Your task to perform on an android device: Do I have any events tomorrow? Image 0: 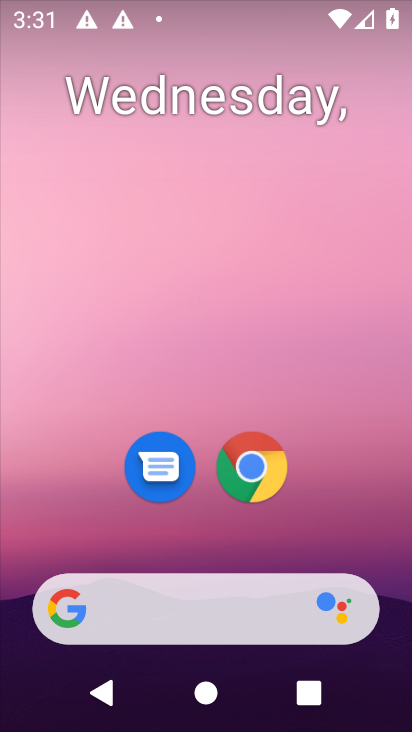
Step 0: drag from (10, 562) to (56, 195)
Your task to perform on an android device: Do I have any events tomorrow? Image 1: 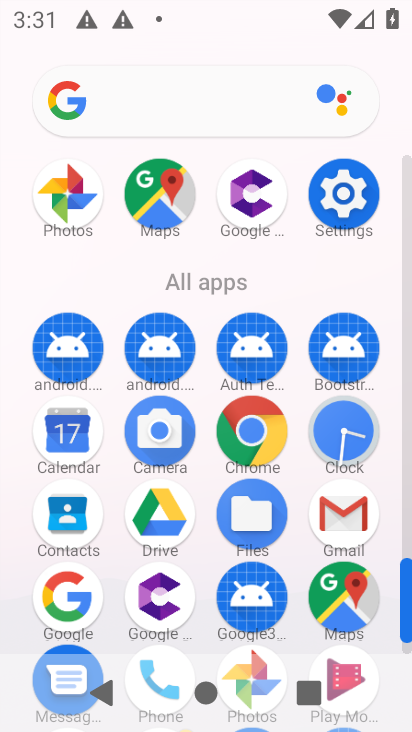
Step 1: click (66, 446)
Your task to perform on an android device: Do I have any events tomorrow? Image 2: 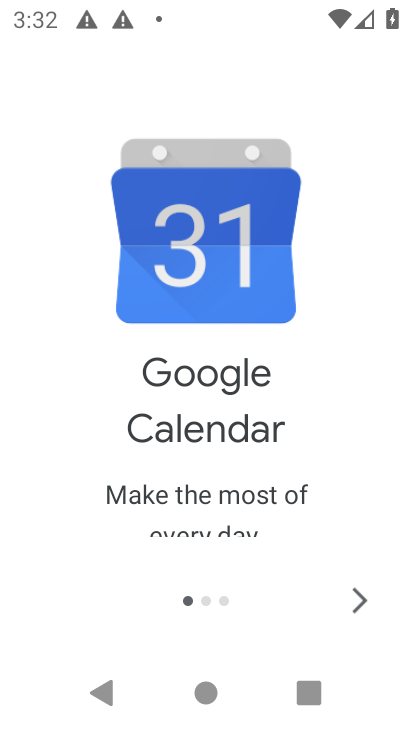
Step 2: click (363, 593)
Your task to perform on an android device: Do I have any events tomorrow? Image 3: 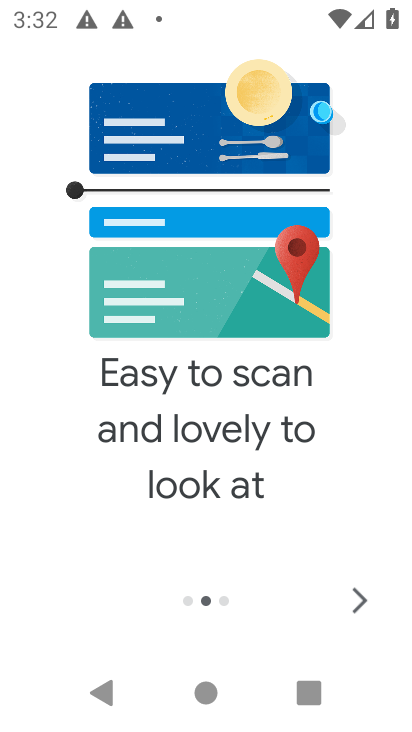
Step 3: click (363, 593)
Your task to perform on an android device: Do I have any events tomorrow? Image 4: 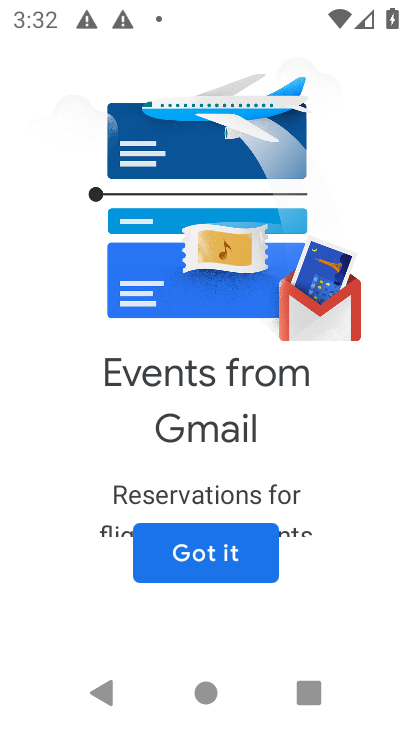
Step 4: click (197, 535)
Your task to perform on an android device: Do I have any events tomorrow? Image 5: 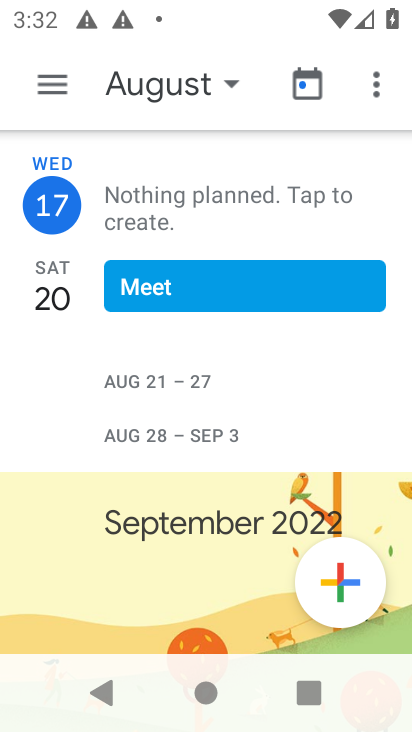
Step 5: click (158, 82)
Your task to perform on an android device: Do I have any events tomorrow? Image 6: 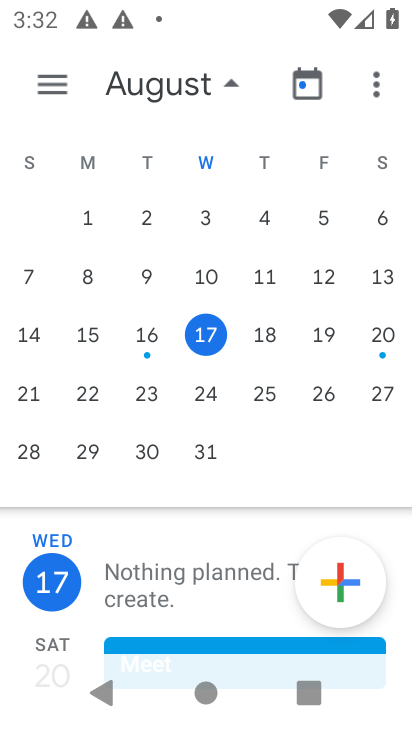
Step 6: task complete